Your task to perform on an android device: Open maps Image 0: 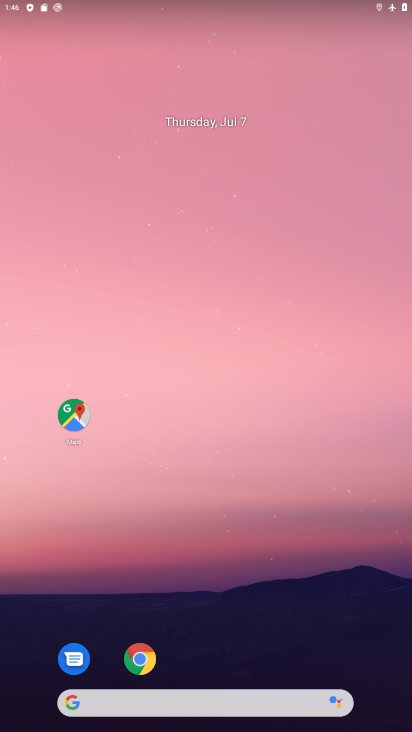
Step 0: drag from (300, 338) to (329, 237)
Your task to perform on an android device: Open maps Image 1: 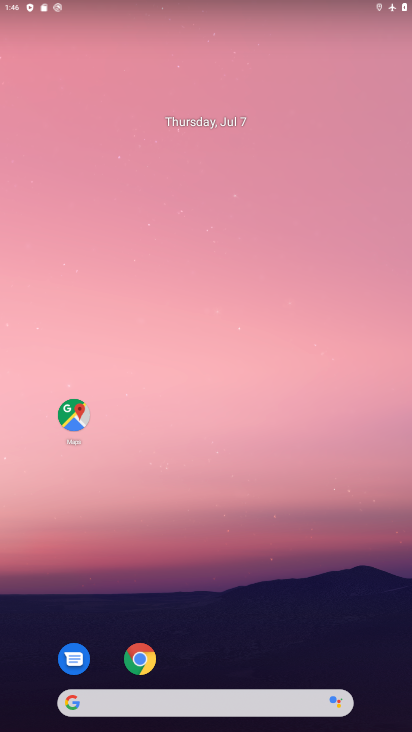
Step 1: drag from (286, 498) to (327, 209)
Your task to perform on an android device: Open maps Image 2: 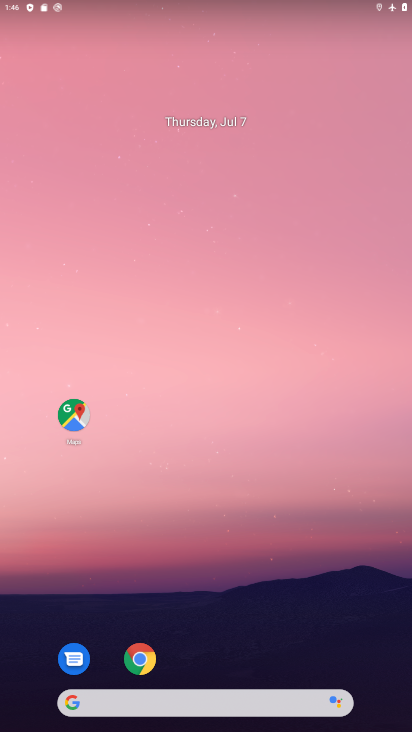
Step 2: drag from (239, 550) to (294, 155)
Your task to perform on an android device: Open maps Image 3: 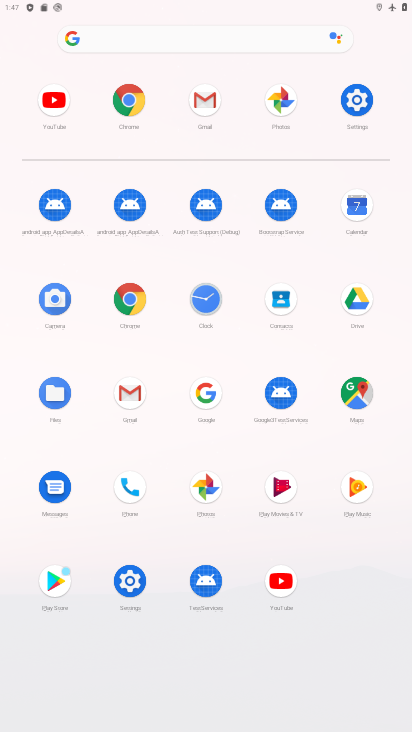
Step 3: click (349, 400)
Your task to perform on an android device: Open maps Image 4: 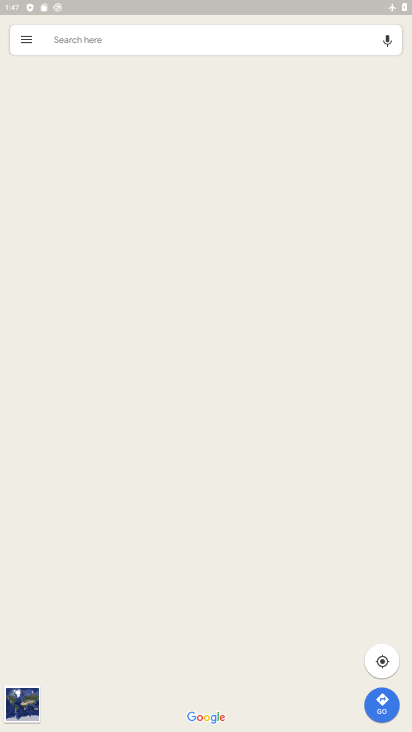
Step 4: task complete